Your task to perform on an android device: Open settings Image 0: 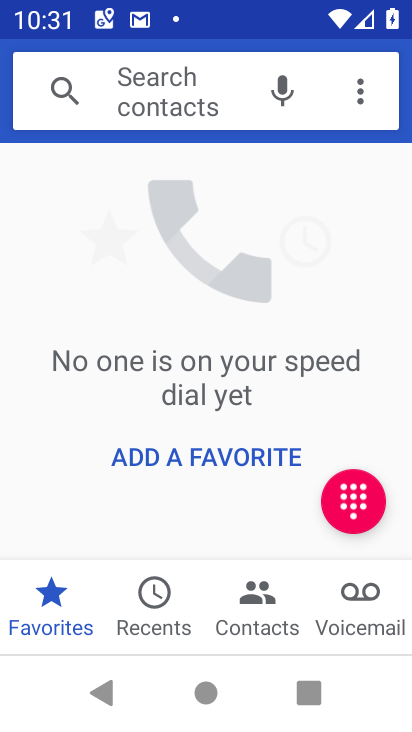
Step 0: press home button
Your task to perform on an android device: Open settings Image 1: 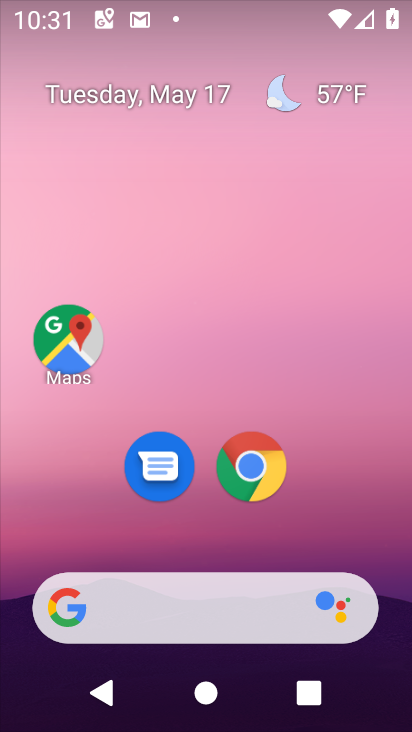
Step 1: drag from (244, 637) to (281, 220)
Your task to perform on an android device: Open settings Image 2: 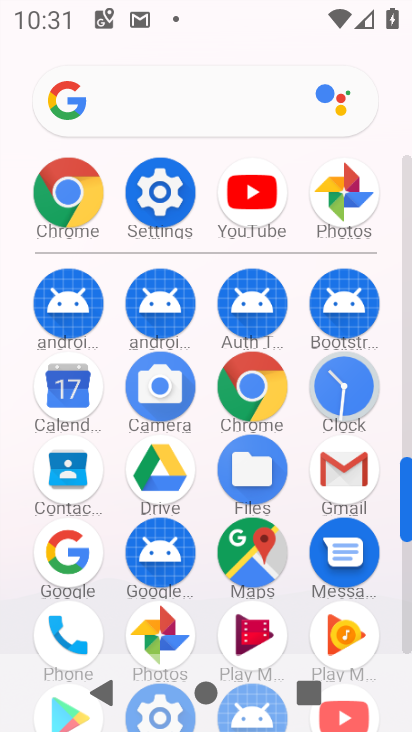
Step 2: click (136, 207)
Your task to perform on an android device: Open settings Image 3: 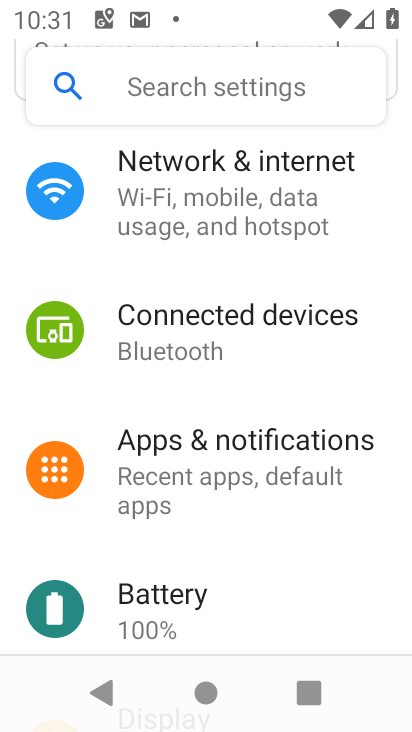
Step 3: task complete